Your task to perform on an android device: Go to Yahoo.com Image 0: 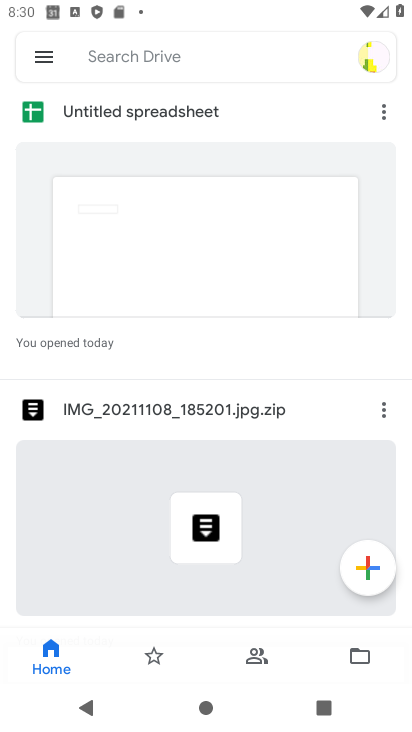
Step 0: press home button
Your task to perform on an android device: Go to Yahoo.com Image 1: 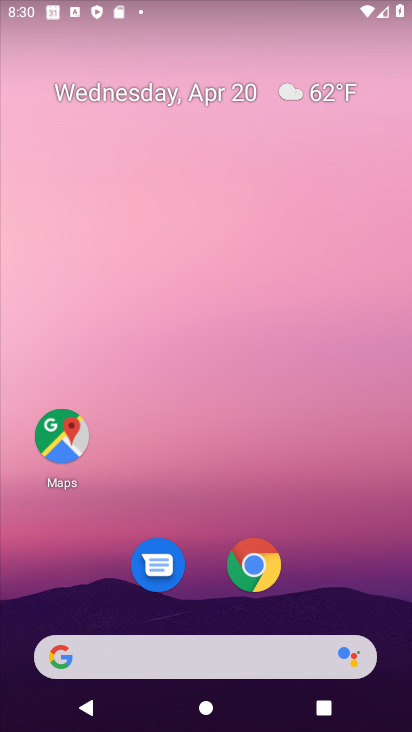
Step 1: drag from (326, 593) to (380, 40)
Your task to perform on an android device: Go to Yahoo.com Image 2: 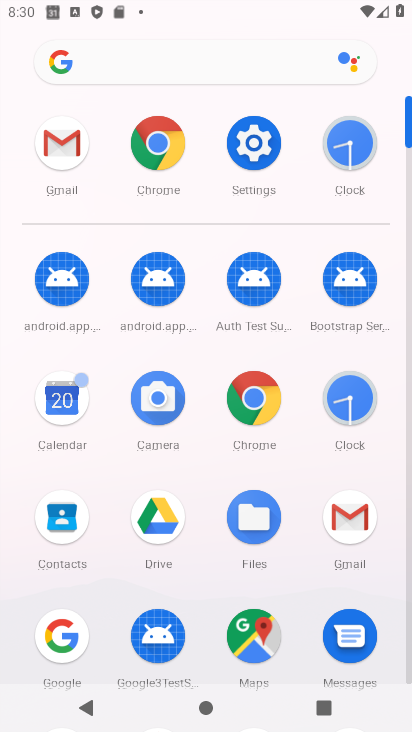
Step 2: click (271, 388)
Your task to perform on an android device: Go to Yahoo.com Image 3: 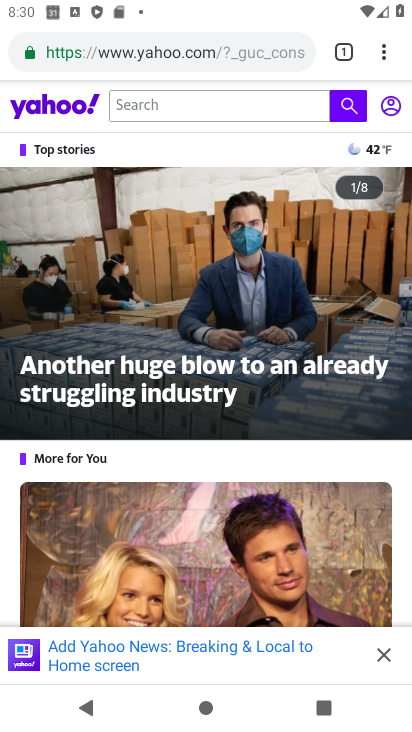
Step 3: task complete